Your task to perform on an android device: turn notification dots off Image 0: 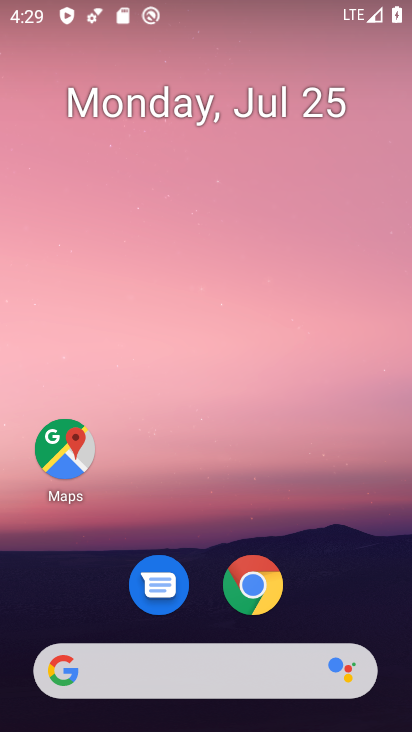
Step 0: drag from (363, 616) to (270, 92)
Your task to perform on an android device: turn notification dots off Image 1: 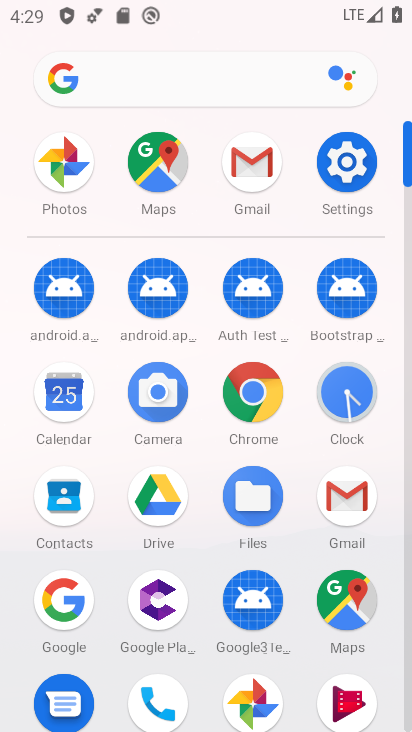
Step 1: click (350, 172)
Your task to perform on an android device: turn notification dots off Image 2: 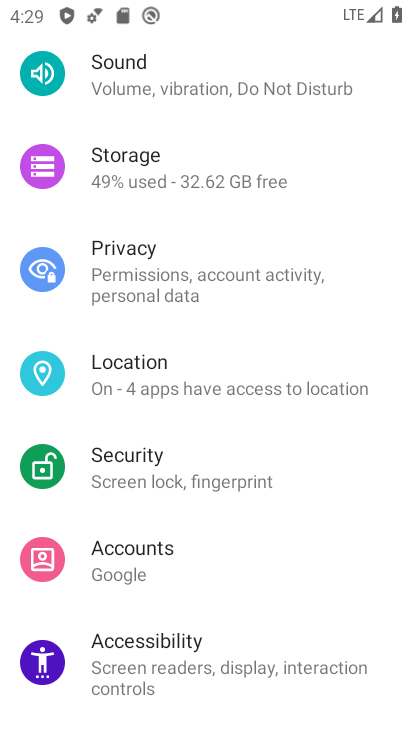
Step 2: drag from (217, 141) to (232, 649)
Your task to perform on an android device: turn notification dots off Image 3: 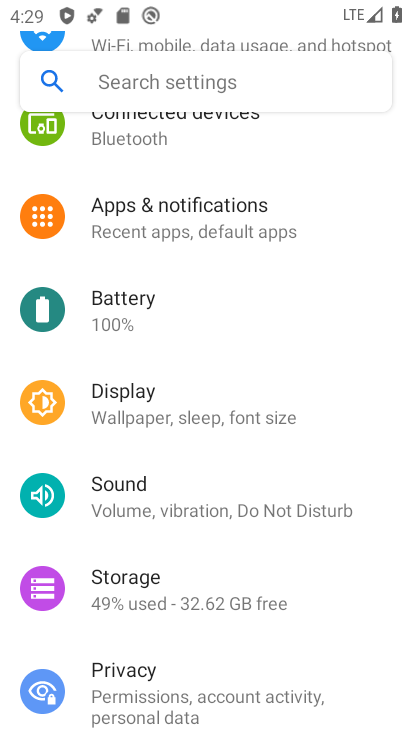
Step 3: click (239, 216)
Your task to perform on an android device: turn notification dots off Image 4: 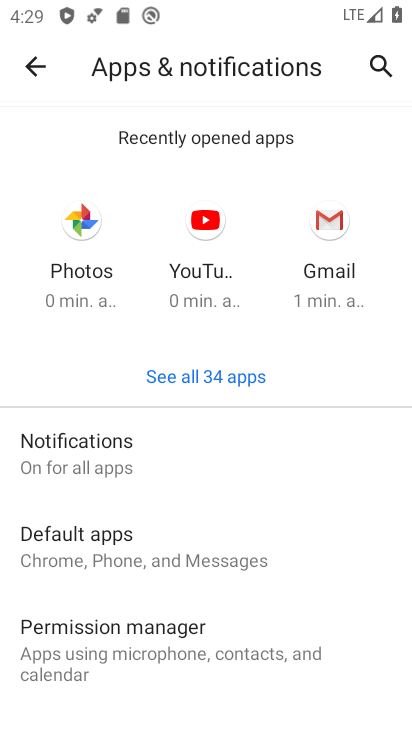
Step 4: click (101, 457)
Your task to perform on an android device: turn notification dots off Image 5: 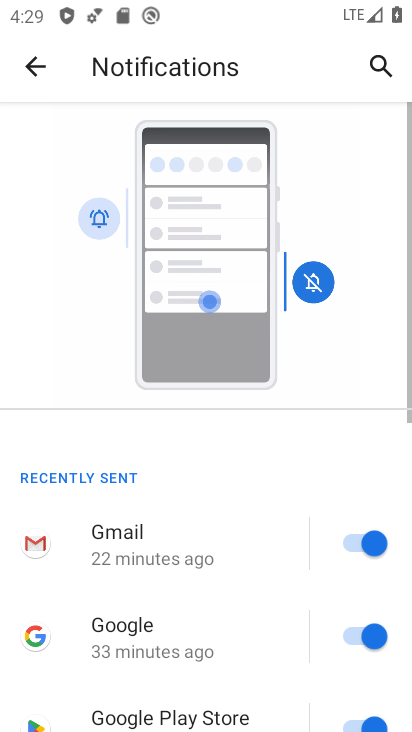
Step 5: drag from (209, 634) to (212, 232)
Your task to perform on an android device: turn notification dots off Image 6: 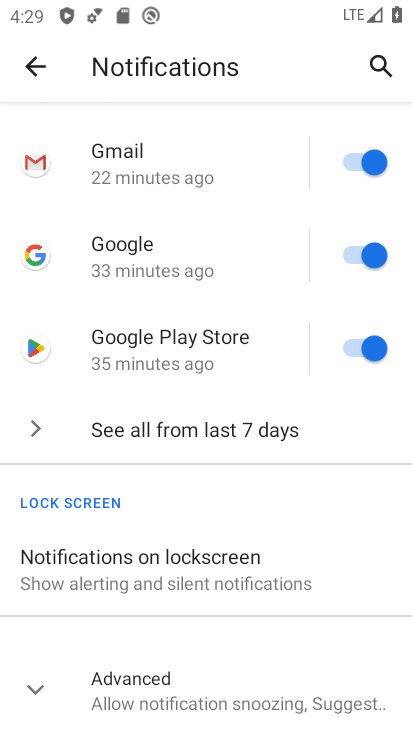
Step 6: click (30, 690)
Your task to perform on an android device: turn notification dots off Image 7: 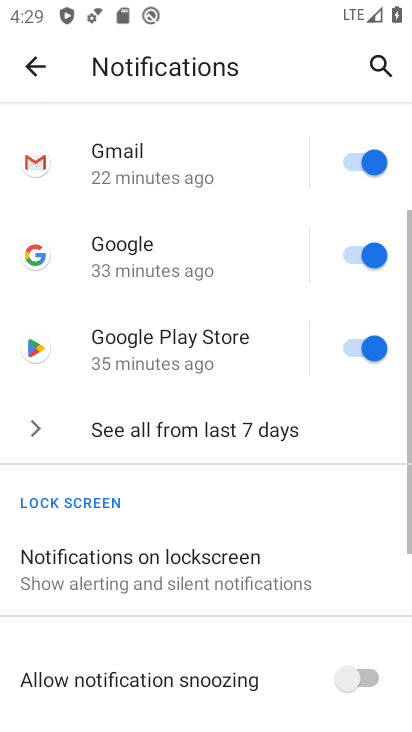
Step 7: drag from (231, 575) to (267, 222)
Your task to perform on an android device: turn notification dots off Image 8: 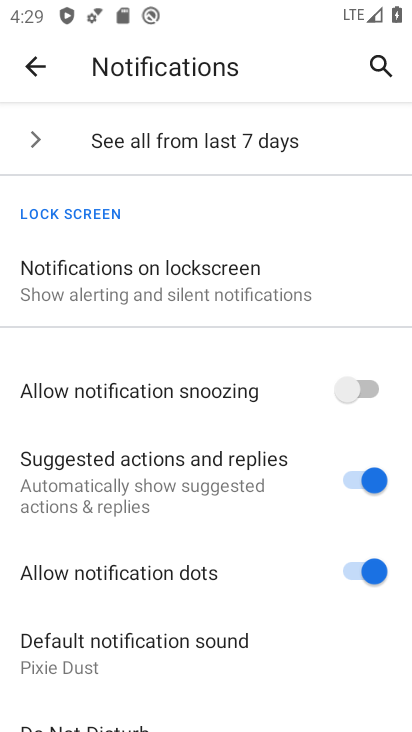
Step 8: click (363, 570)
Your task to perform on an android device: turn notification dots off Image 9: 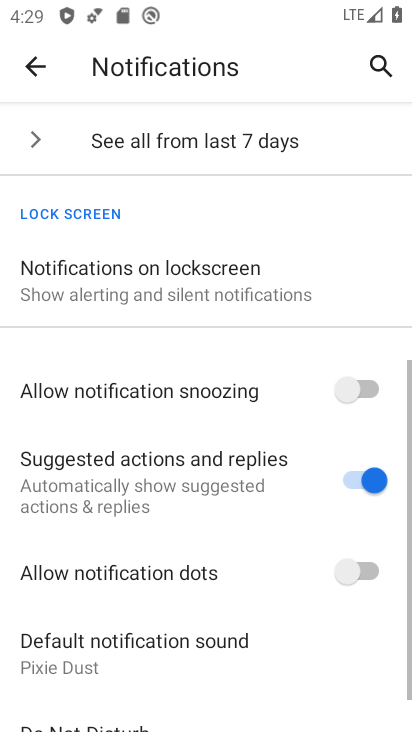
Step 9: task complete